Your task to perform on an android device: Open wifi settings Image 0: 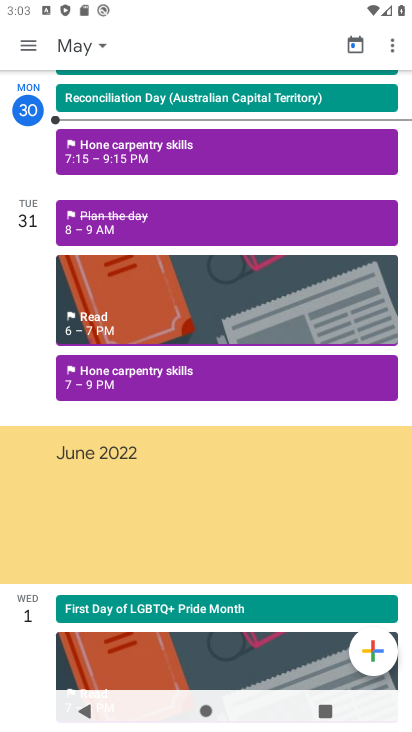
Step 0: press home button
Your task to perform on an android device: Open wifi settings Image 1: 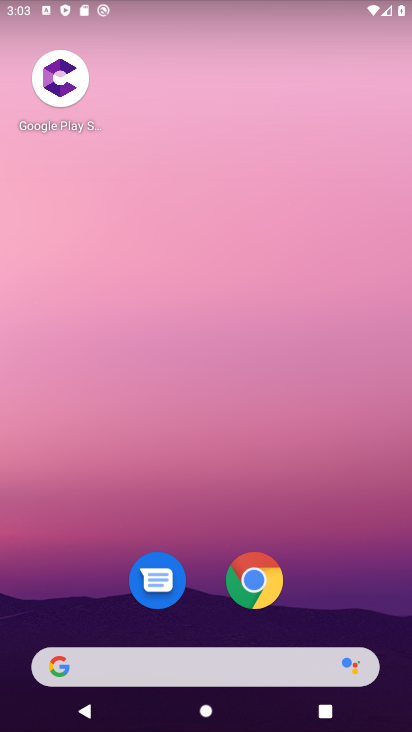
Step 1: click (333, 52)
Your task to perform on an android device: Open wifi settings Image 2: 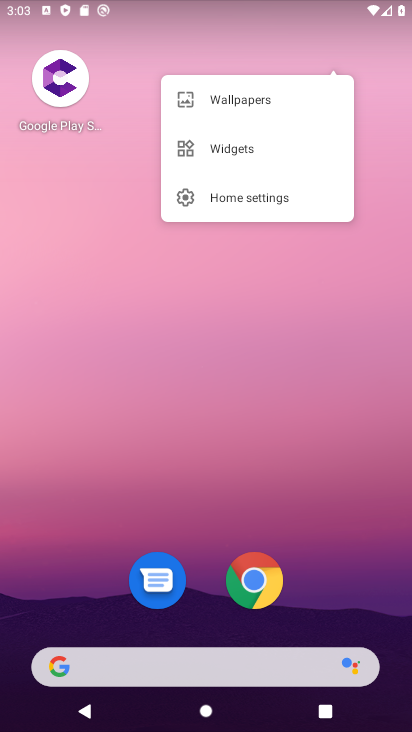
Step 2: drag from (313, 593) to (316, 85)
Your task to perform on an android device: Open wifi settings Image 3: 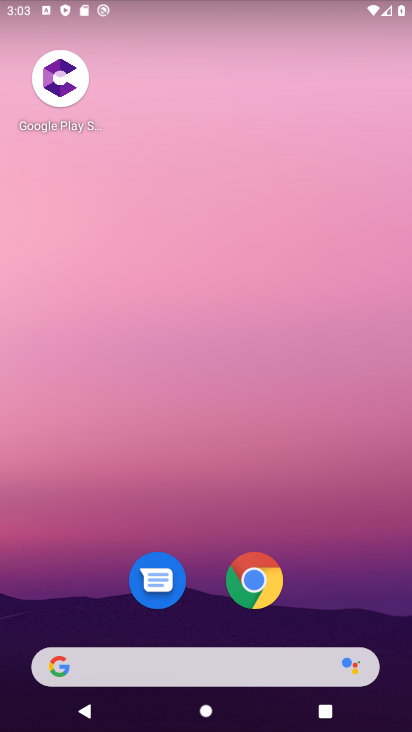
Step 3: drag from (195, 604) to (213, 60)
Your task to perform on an android device: Open wifi settings Image 4: 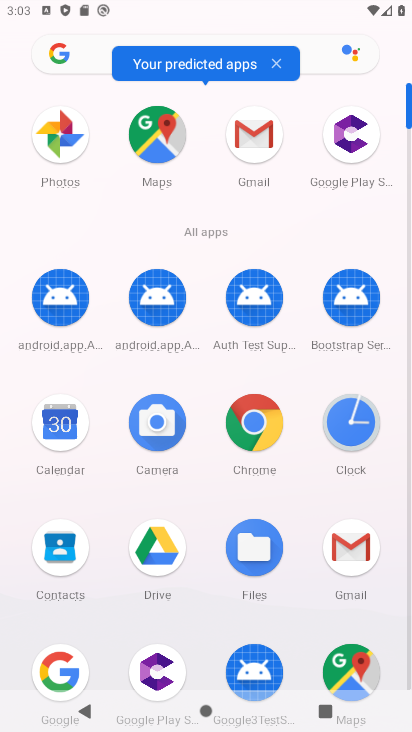
Step 4: drag from (194, 586) to (210, 45)
Your task to perform on an android device: Open wifi settings Image 5: 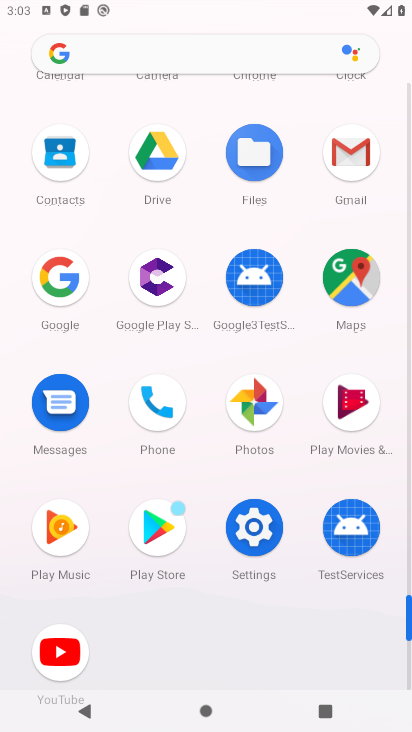
Step 5: click (258, 533)
Your task to perform on an android device: Open wifi settings Image 6: 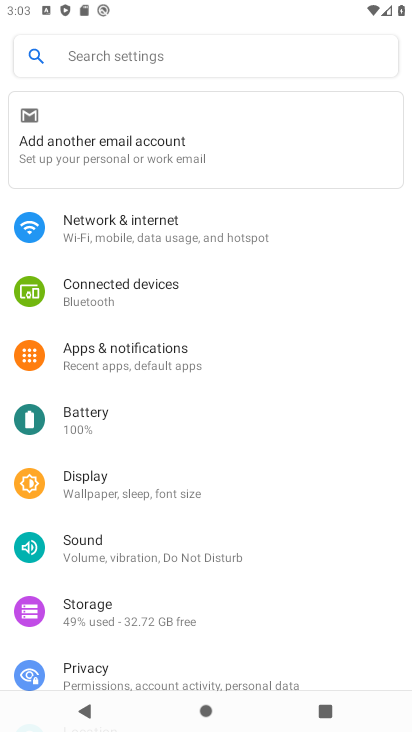
Step 6: click (109, 221)
Your task to perform on an android device: Open wifi settings Image 7: 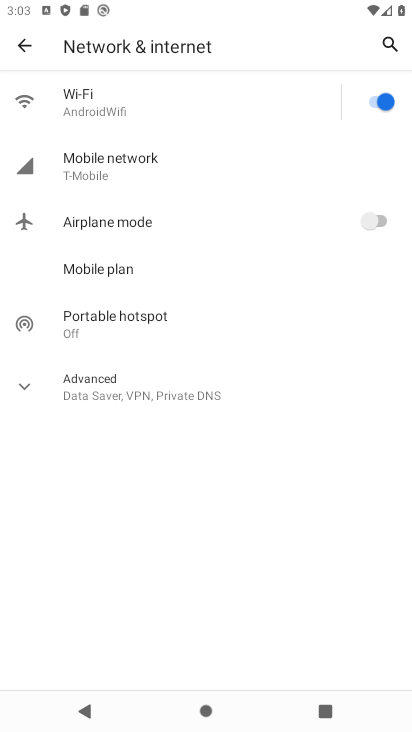
Step 7: click (143, 98)
Your task to perform on an android device: Open wifi settings Image 8: 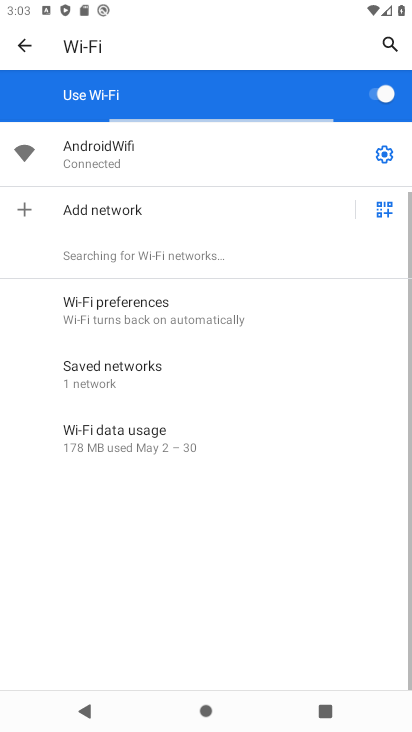
Step 8: click (135, 155)
Your task to perform on an android device: Open wifi settings Image 9: 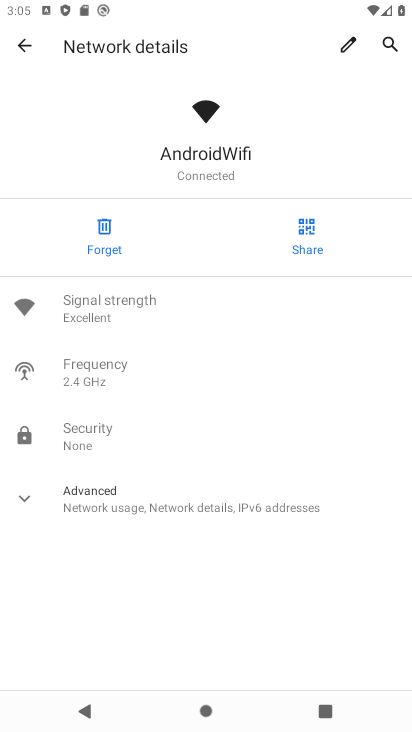
Step 9: task complete